Your task to perform on an android device: move a message to another label in the gmail app Image 0: 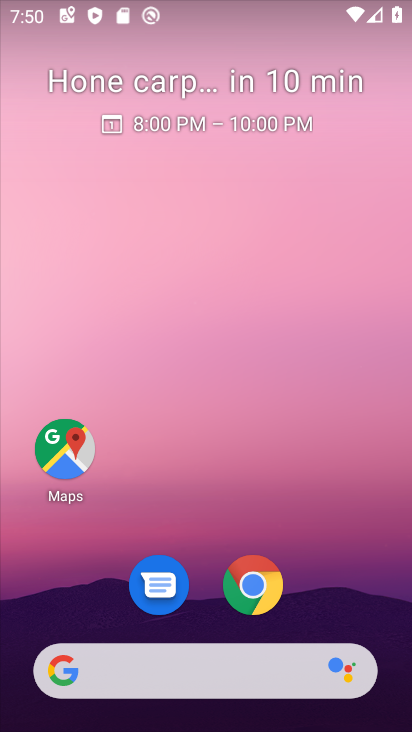
Step 0: drag from (332, 542) to (333, 68)
Your task to perform on an android device: move a message to another label in the gmail app Image 1: 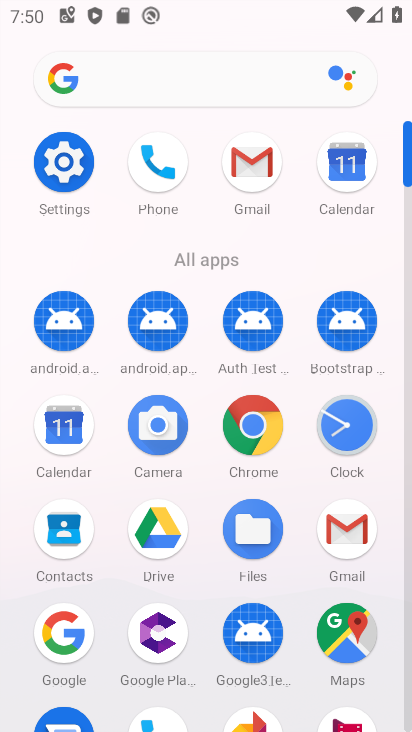
Step 1: click (260, 166)
Your task to perform on an android device: move a message to another label in the gmail app Image 2: 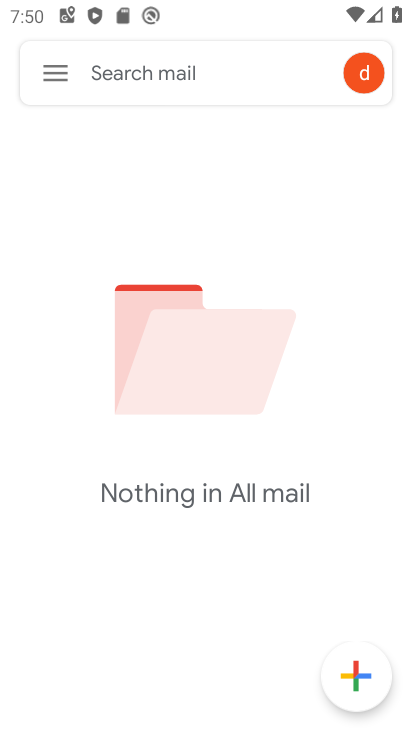
Step 2: task complete